Your task to perform on an android device: Open calendar and show me the third week of next month Image 0: 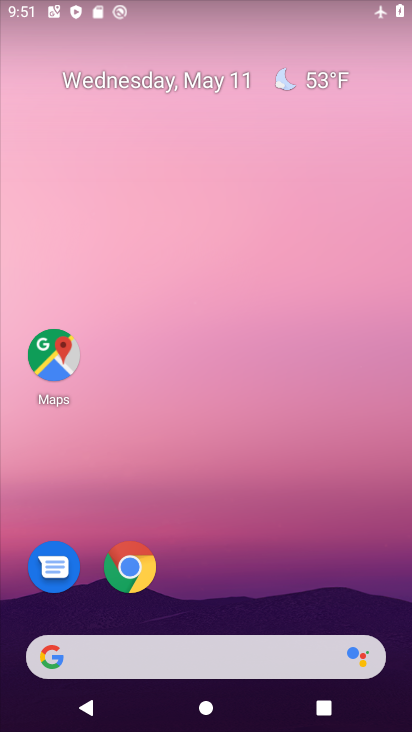
Step 0: drag from (258, 709) to (207, 124)
Your task to perform on an android device: Open calendar and show me the third week of next month Image 1: 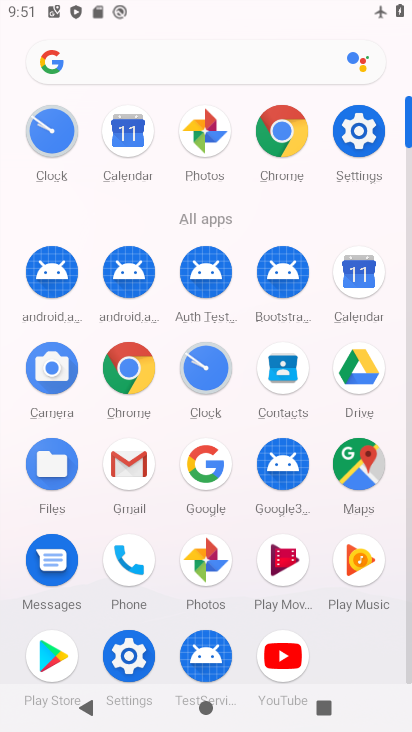
Step 1: click (359, 286)
Your task to perform on an android device: Open calendar and show me the third week of next month Image 2: 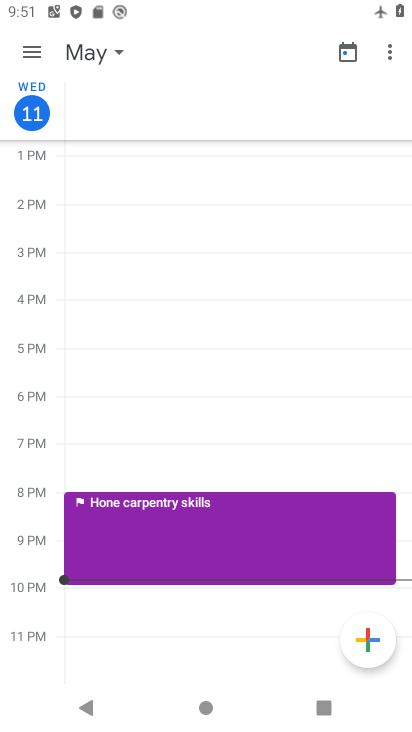
Step 2: click (96, 46)
Your task to perform on an android device: Open calendar and show me the third week of next month Image 3: 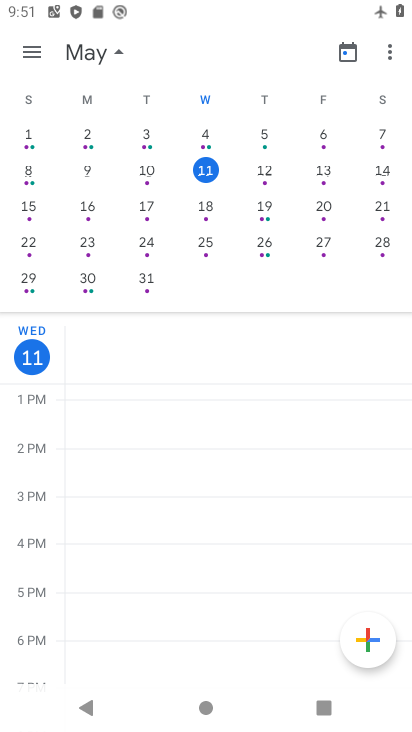
Step 3: drag from (359, 144) to (37, 205)
Your task to perform on an android device: Open calendar and show me the third week of next month Image 4: 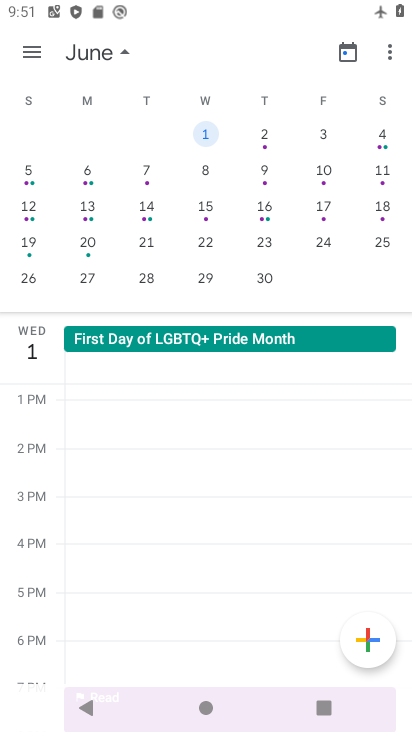
Step 4: click (33, 205)
Your task to perform on an android device: Open calendar and show me the third week of next month Image 5: 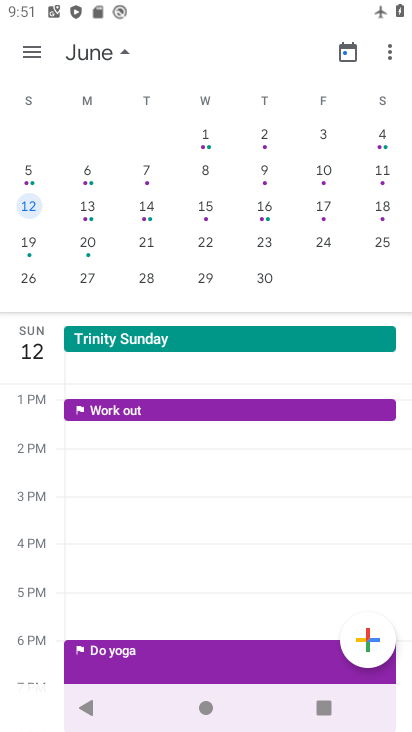
Step 5: task complete